Your task to perform on an android device: turn on the 24-hour format for clock Image 0: 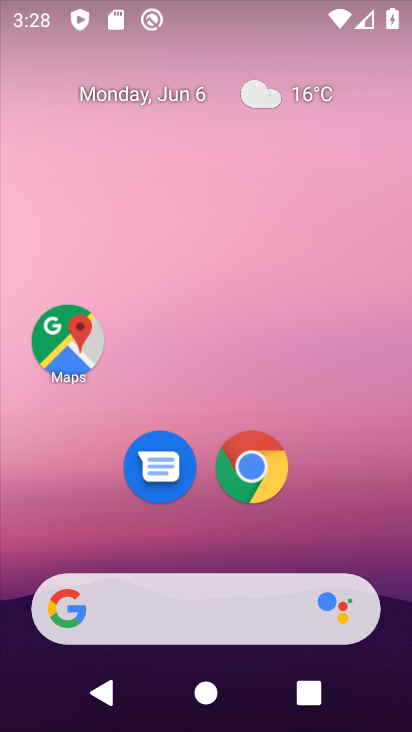
Step 0: drag from (205, 553) to (277, 102)
Your task to perform on an android device: turn on the 24-hour format for clock Image 1: 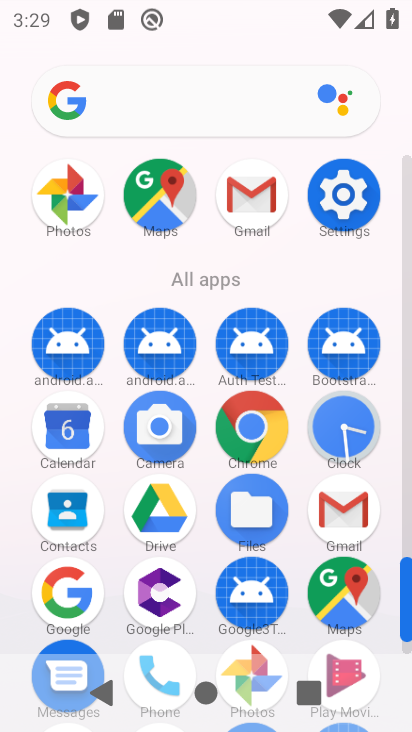
Step 1: click (333, 425)
Your task to perform on an android device: turn on the 24-hour format for clock Image 2: 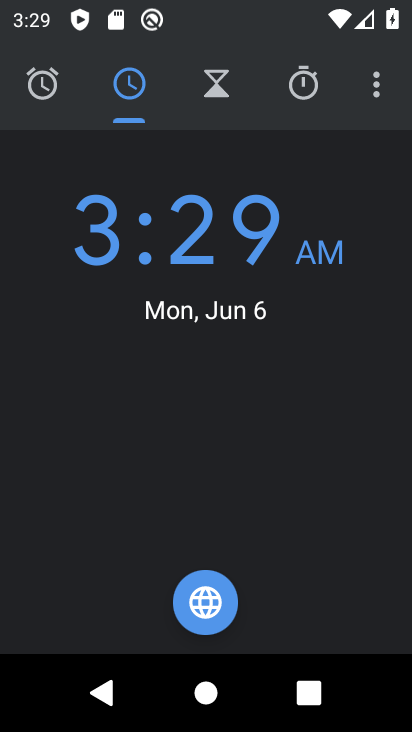
Step 2: click (372, 85)
Your task to perform on an android device: turn on the 24-hour format for clock Image 3: 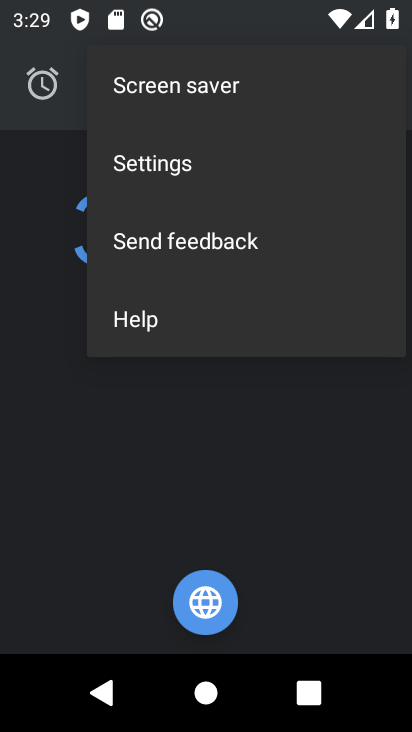
Step 3: click (195, 172)
Your task to perform on an android device: turn on the 24-hour format for clock Image 4: 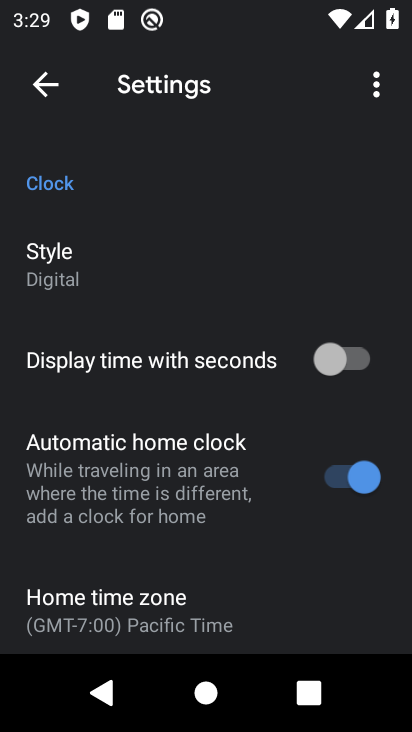
Step 4: drag from (232, 563) to (271, 101)
Your task to perform on an android device: turn on the 24-hour format for clock Image 5: 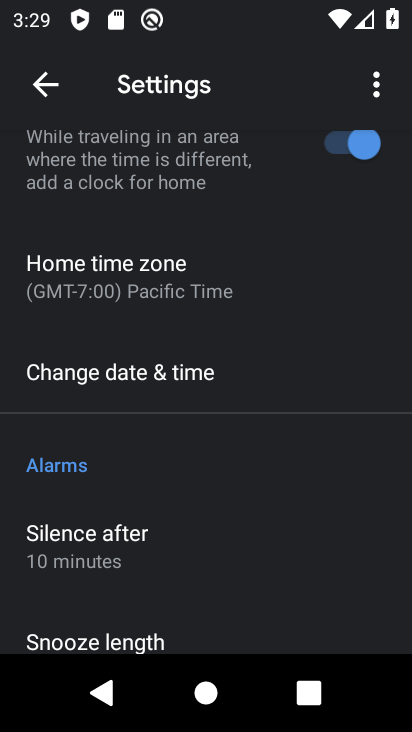
Step 5: click (232, 371)
Your task to perform on an android device: turn on the 24-hour format for clock Image 6: 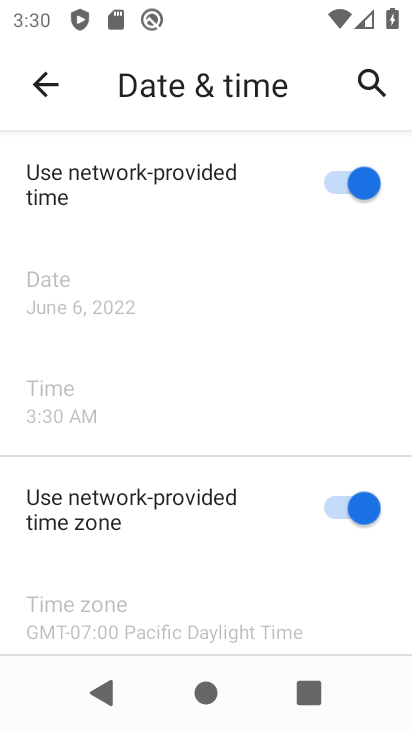
Step 6: drag from (229, 610) to (256, 125)
Your task to perform on an android device: turn on the 24-hour format for clock Image 7: 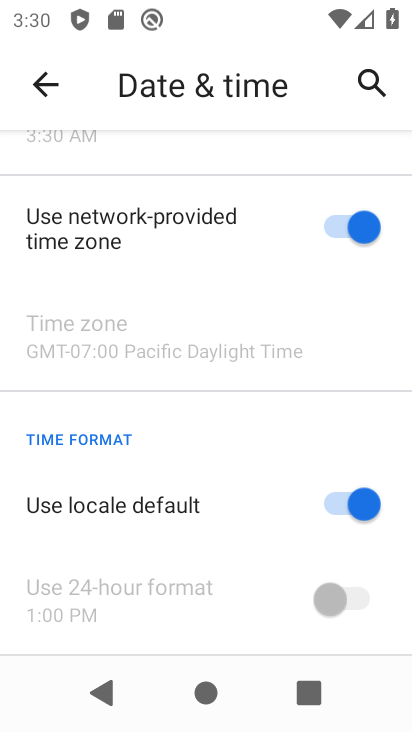
Step 7: click (342, 507)
Your task to perform on an android device: turn on the 24-hour format for clock Image 8: 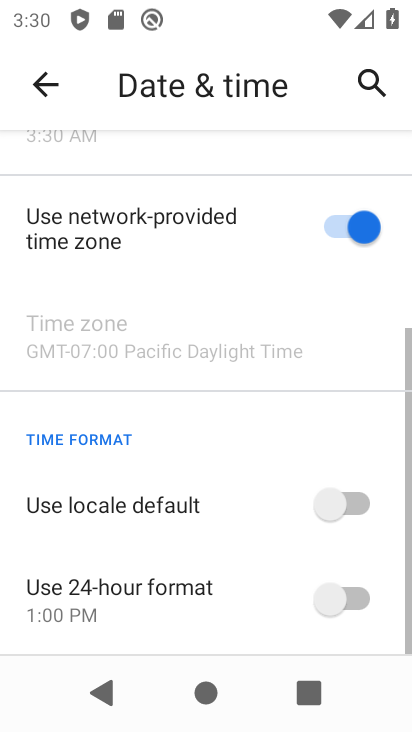
Step 8: click (352, 597)
Your task to perform on an android device: turn on the 24-hour format for clock Image 9: 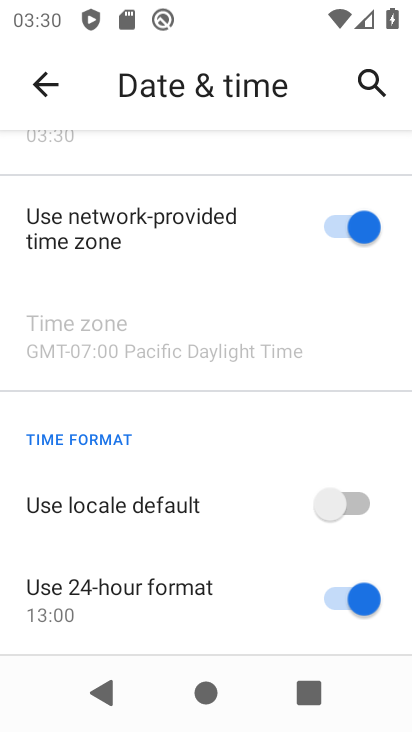
Step 9: task complete